Your task to perform on an android device: turn on data saver in the chrome app Image 0: 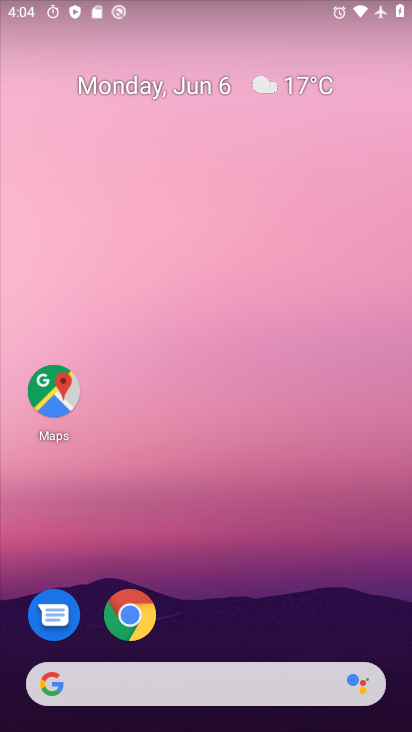
Step 0: drag from (246, 533) to (219, 56)
Your task to perform on an android device: turn on data saver in the chrome app Image 1: 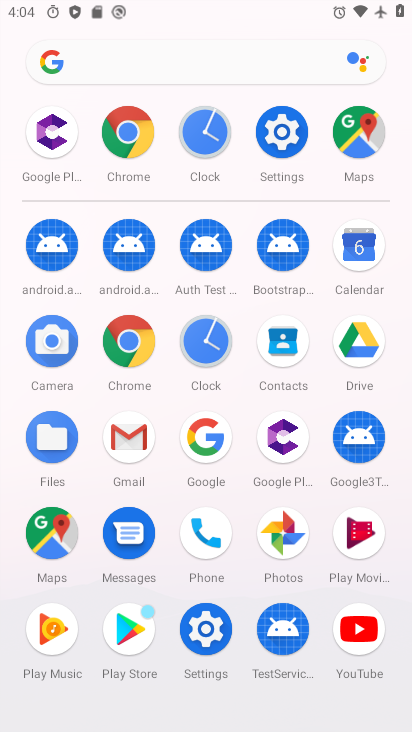
Step 1: click (129, 338)
Your task to perform on an android device: turn on data saver in the chrome app Image 2: 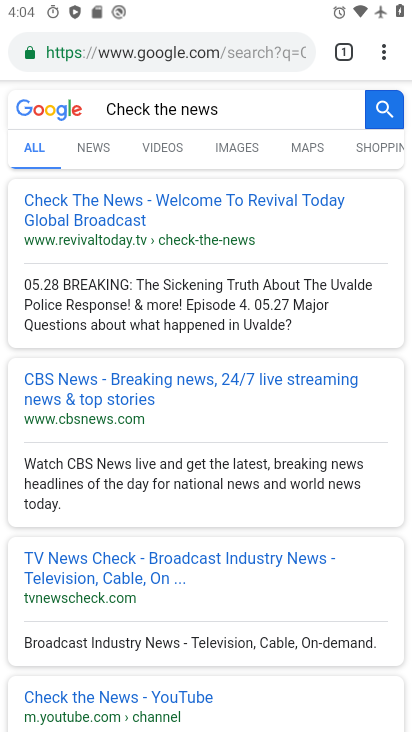
Step 2: drag from (382, 52) to (204, 578)
Your task to perform on an android device: turn on data saver in the chrome app Image 3: 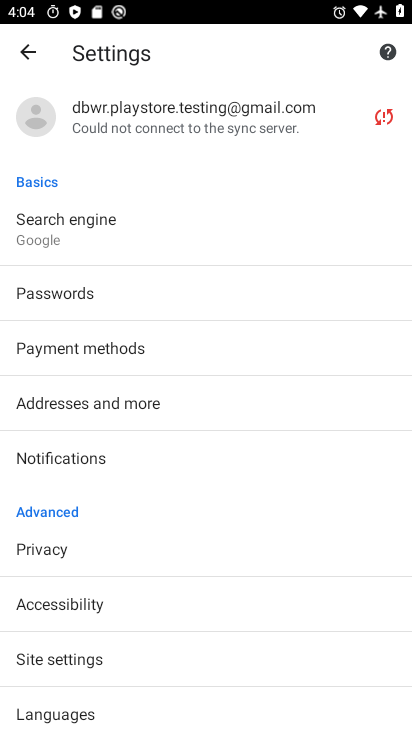
Step 3: drag from (205, 617) to (222, 236)
Your task to perform on an android device: turn on data saver in the chrome app Image 4: 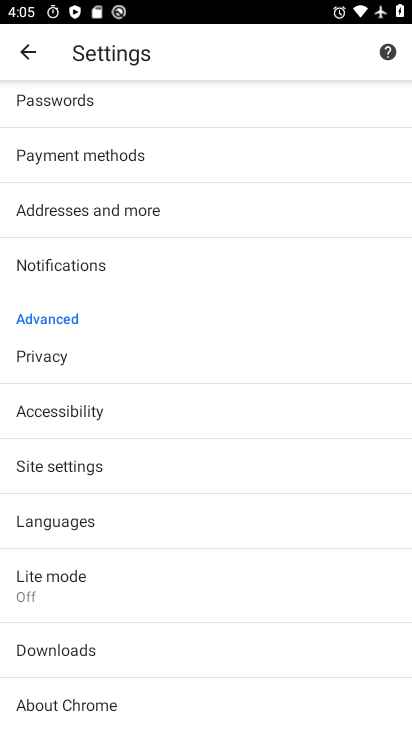
Step 4: click (92, 589)
Your task to perform on an android device: turn on data saver in the chrome app Image 5: 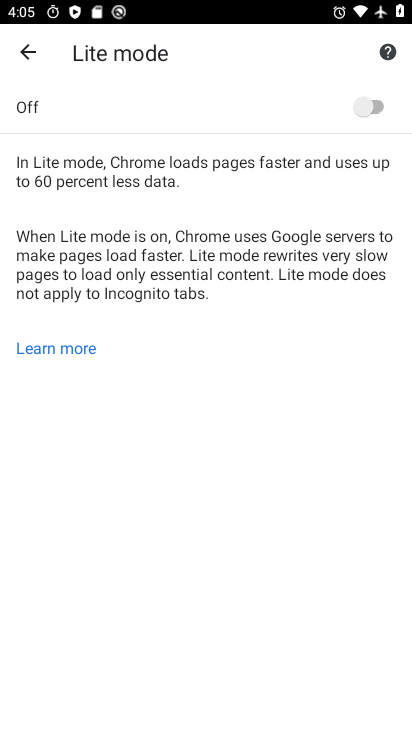
Step 5: click (30, 49)
Your task to perform on an android device: turn on data saver in the chrome app Image 6: 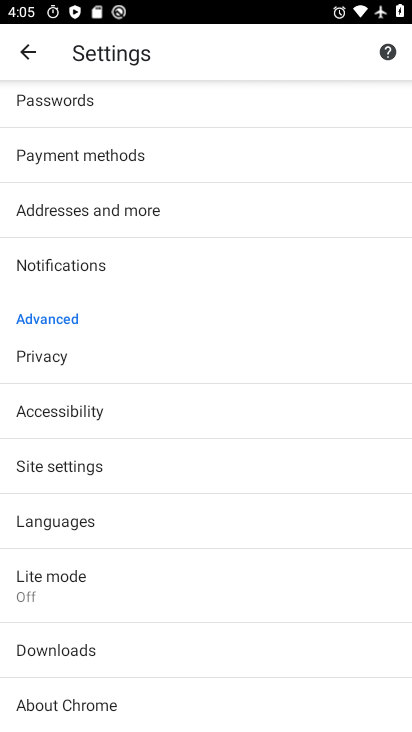
Step 6: click (128, 586)
Your task to perform on an android device: turn on data saver in the chrome app Image 7: 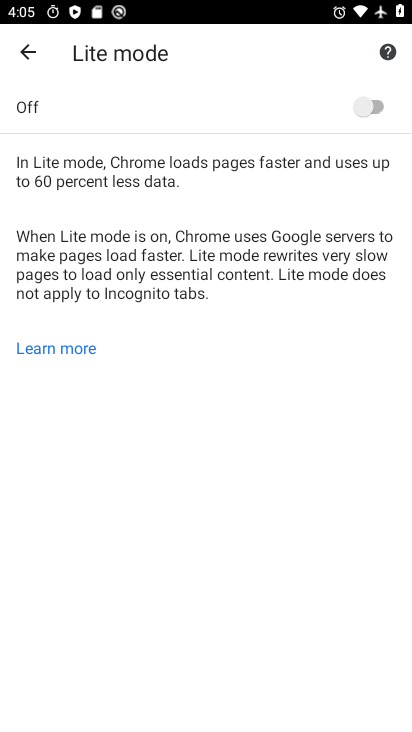
Step 7: click (365, 98)
Your task to perform on an android device: turn on data saver in the chrome app Image 8: 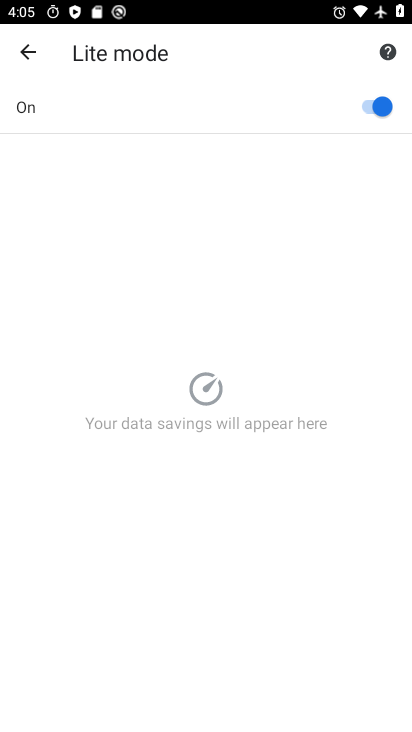
Step 8: task complete